Your task to perform on an android device: empty trash in google photos Image 0: 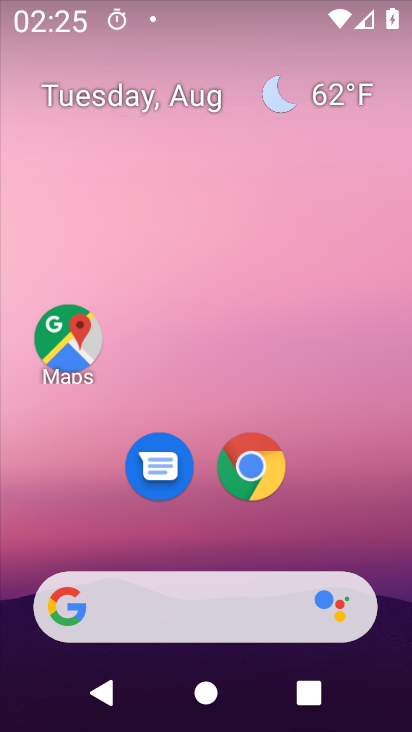
Step 0: drag from (375, 546) to (359, 181)
Your task to perform on an android device: empty trash in google photos Image 1: 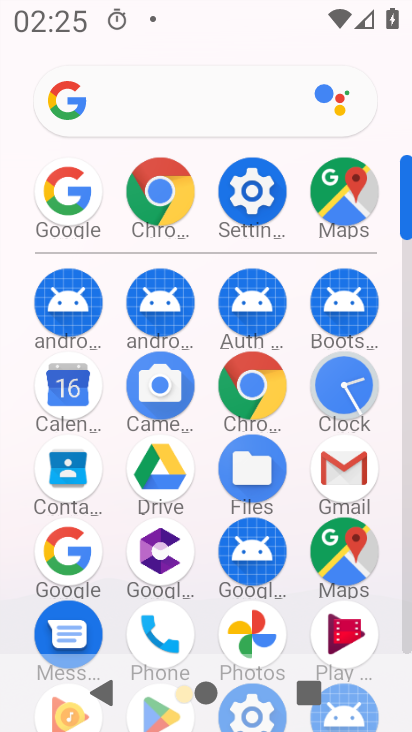
Step 1: click (257, 635)
Your task to perform on an android device: empty trash in google photos Image 2: 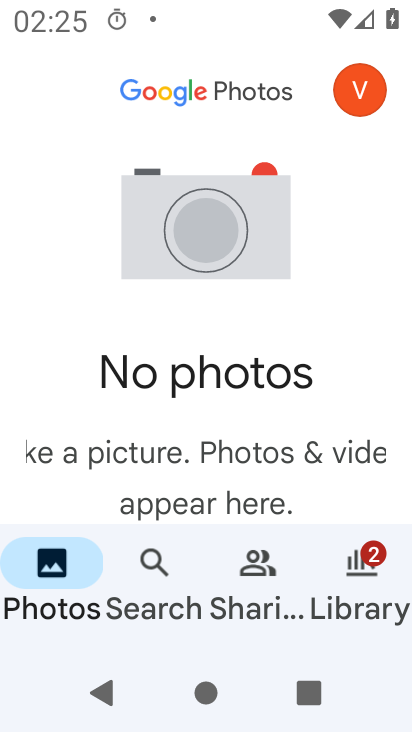
Step 2: click (367, 571)
Your task to perform on an android device: empty trash in google photos Image 3: 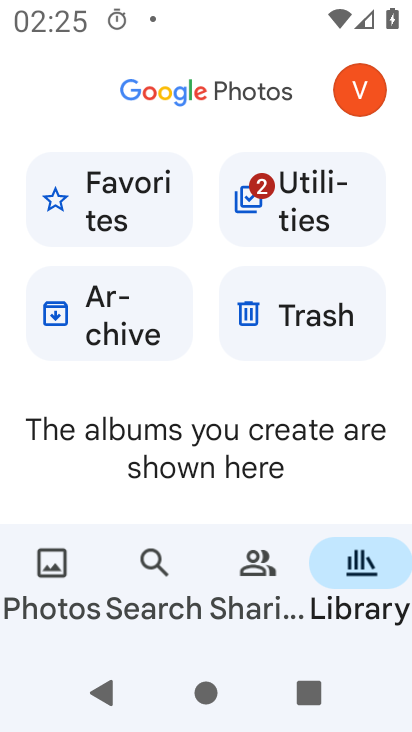
Step 3: click (304, 312)
Your task to perform on an android device: empty trash in google photos Image 4: 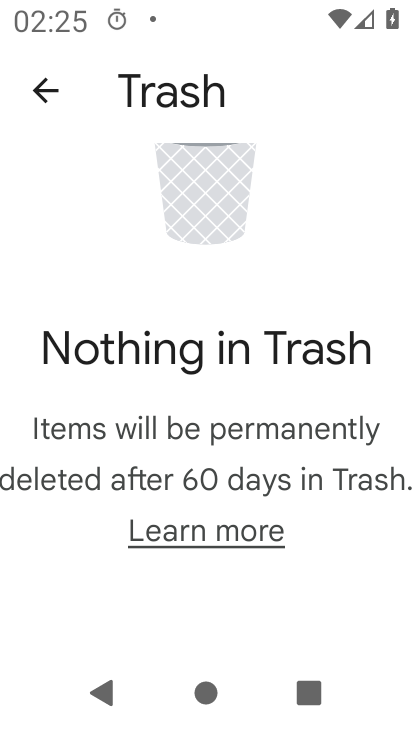
Step 4: task complete